Your task to perform on an android device: Search for pizza restaurants on Maps Image 0: 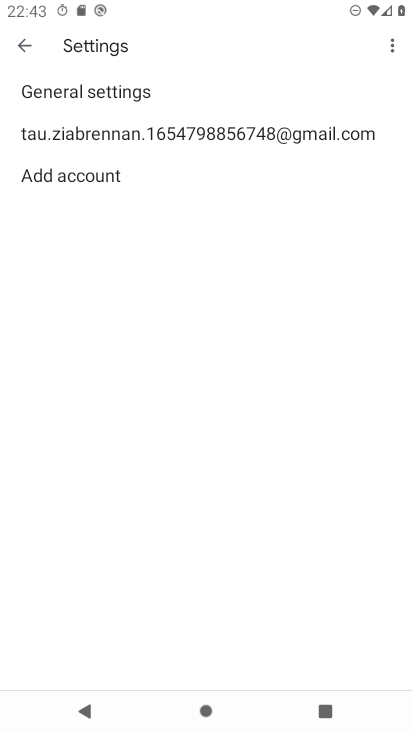
Step 0: press home button
Your task to perform on an android device: Search for pizza restaurants on Maps Image 1: 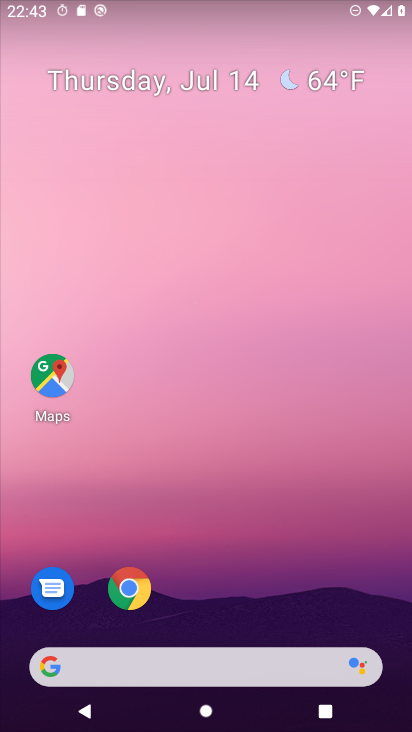
Step 1: drag from (352, 595) to (360, 140)
Your task to perform on an android device: Search for pizza restaurants on Maps Image 2: 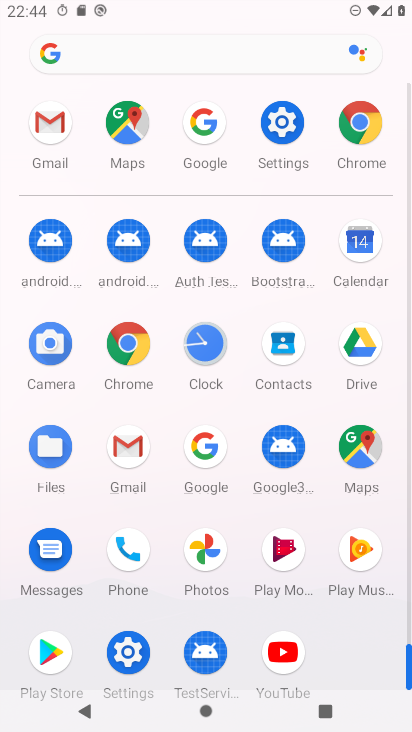
Step 2: click (357, 445)
Your task to perform on an android device: Search for pizza restaurants on Maps Image 3: 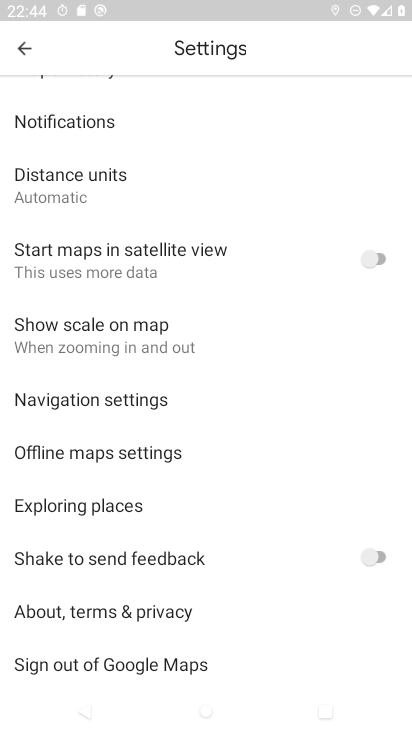
Step 3: press back button
Your task to perform on an android device: Search for pizza restaurants on Maps Image 4: 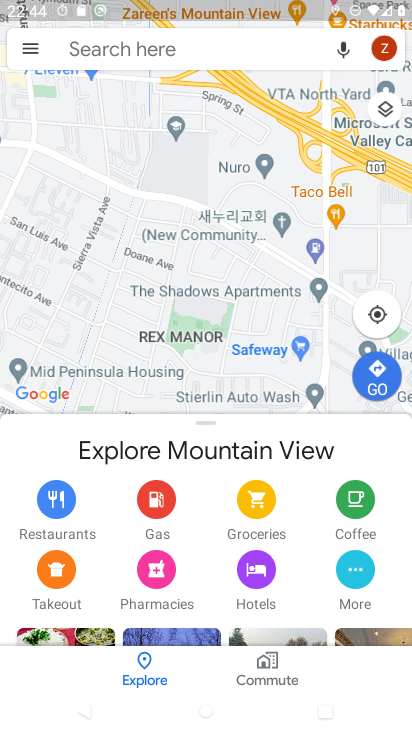
Step 4: click (265, 53)
Your task to perform on an android device: Search for pizza restaurants on Maps Image 5: 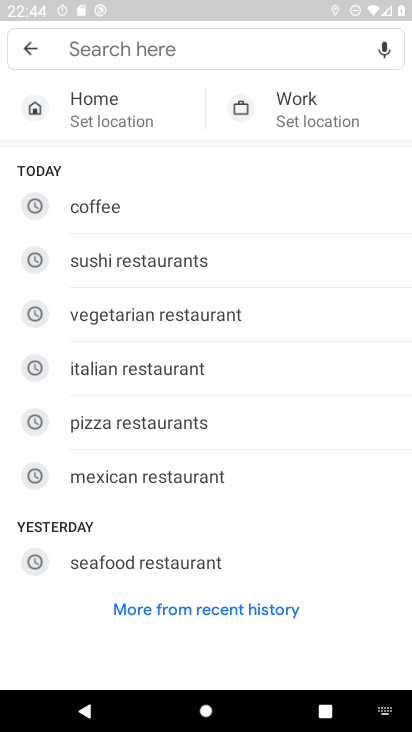
Step 5: type "pizza restaurants"
Your task to perform on an android device: Search for pizza restaurants on Maps Image 6: 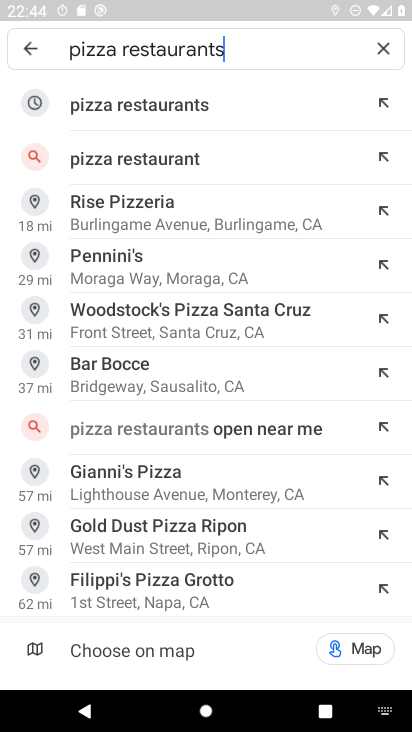
Step 6: click (280, 102)
Your task to perform on an android device: Search for pizza restaurants on Maps Image 7: 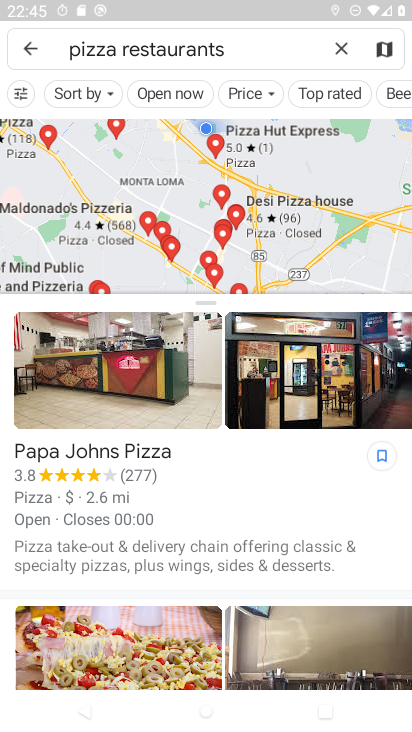
Step 7: task complete